Your task to perform on an android device: Go to location settings Image 0: 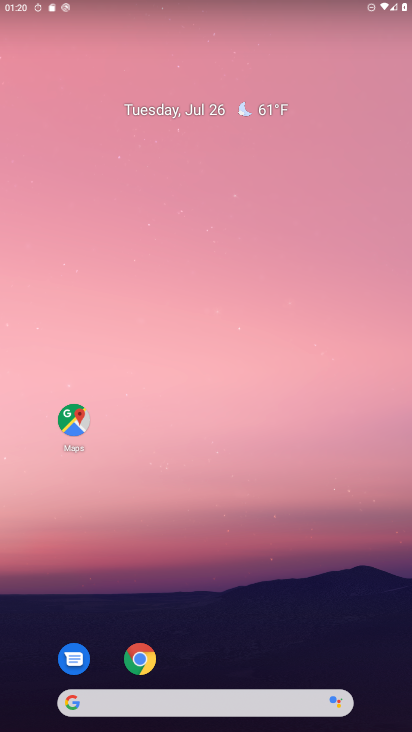
Step 0: drag from (36, 661) to (292, 245)
Your task to perform on an android device: Go to location settings Image 1: 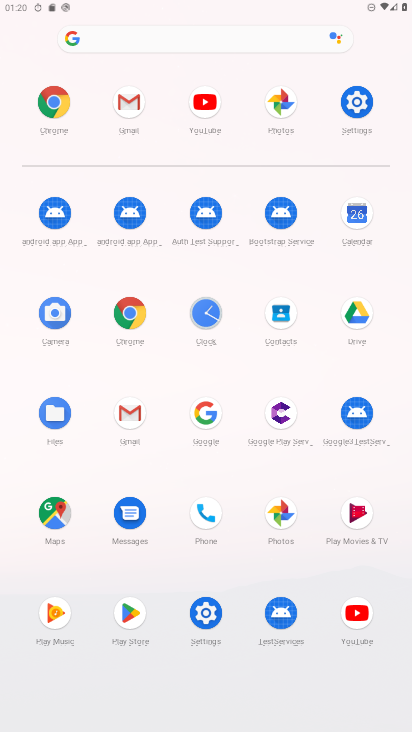
Step 1: click (201, 599)
Your task to perform on an android device: Go to location settings Image 2: 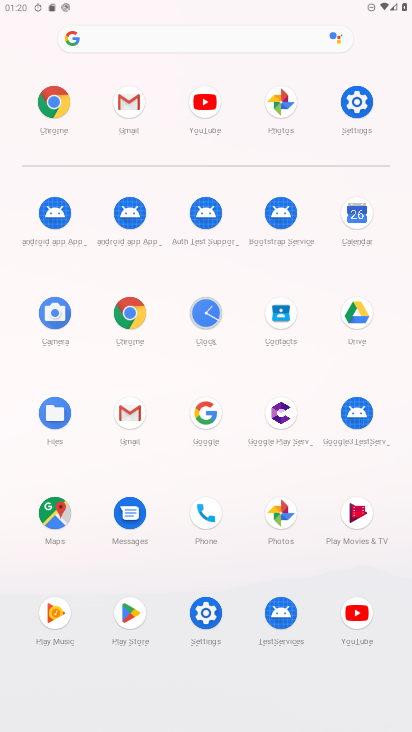
Step 2: click (206, 611)
Your task to perform on an android device: Go to location settings Image 3: 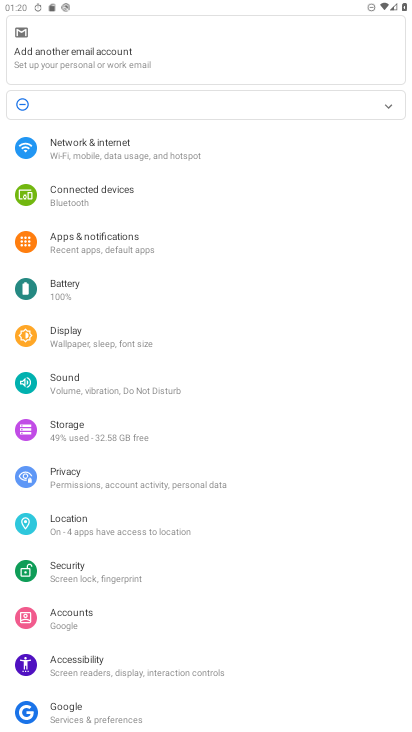
Step 3: click (111, 518)
Your task to perform on an android device: Go to location settings Image 4: 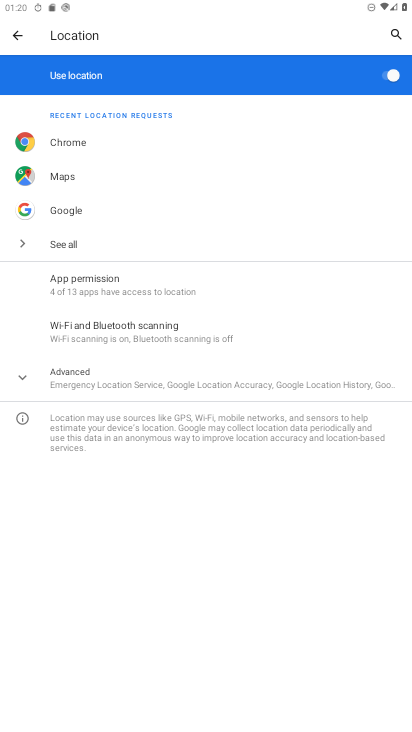
Step 4: task complete